Your task to perform on an android device: check google app version Image 0: 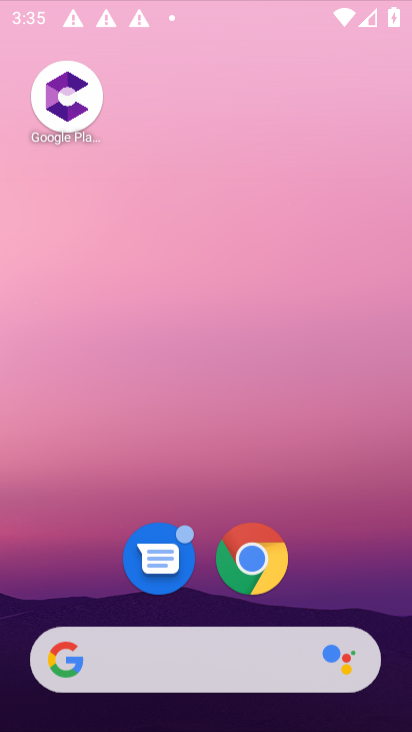
Step 0: click (352, 34)
Your task to perform on an android device: check google app version Image 1: 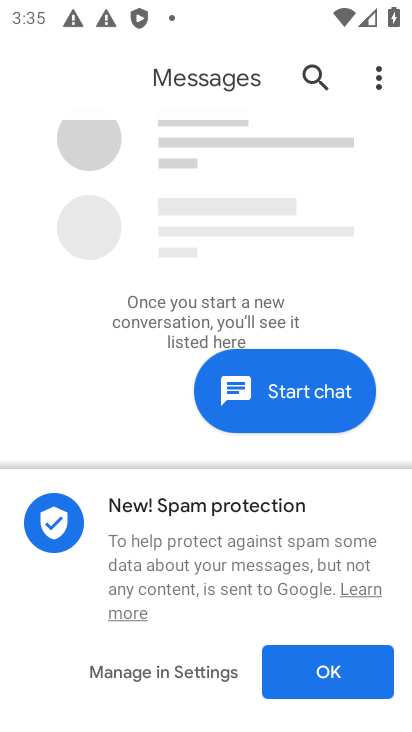
Step 1: press home button
Your task to perform on an android device: check google app version Image 2: 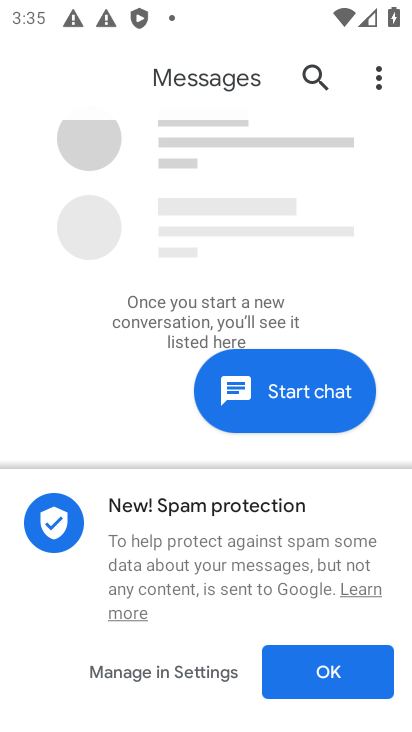
Step 2: press home button
Your task to perform on an android device: check google app version Image 3: 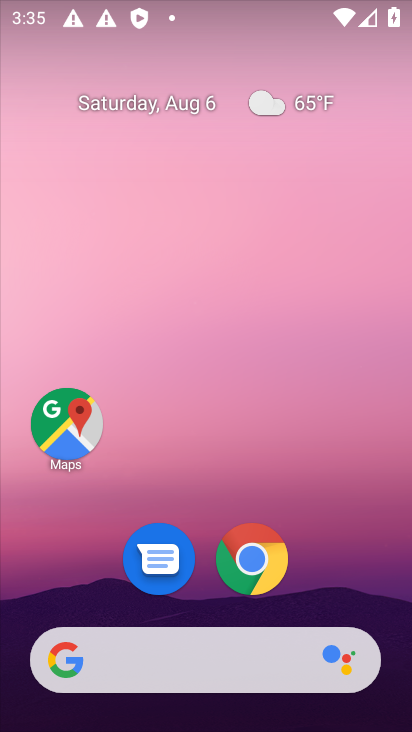
Step 3: click (116, 659)
Your task to perform on an android device: check google app version Image 4: 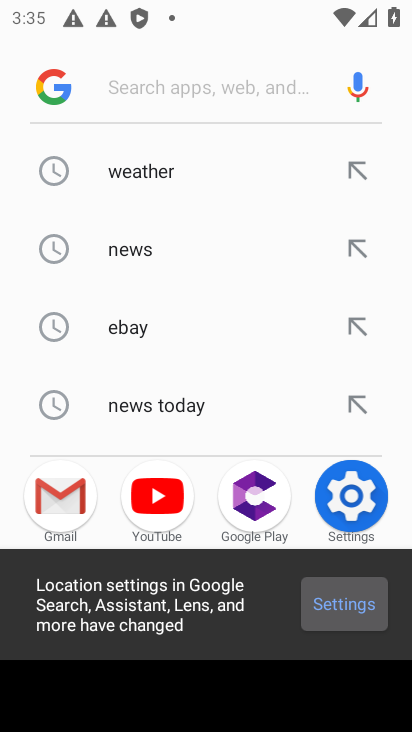
Step 4: click (45, 95)
Your task to perform on an android device: check google app version Image 5: 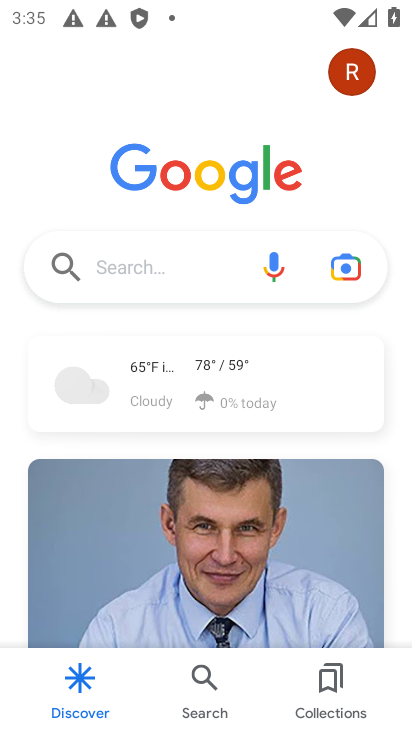
Step 5: click (353, 80)
Your task to perform on an android device: check google app version Image 6: 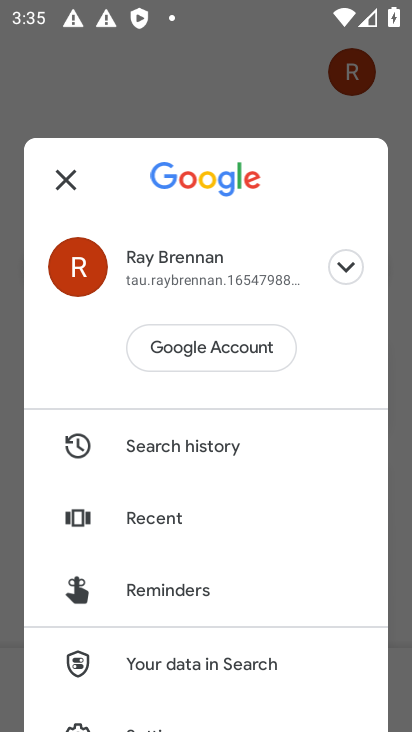
Step 6: drag from (217, 563) to (258, 273)
Your task to perform on an android device: check google app version Image 7: 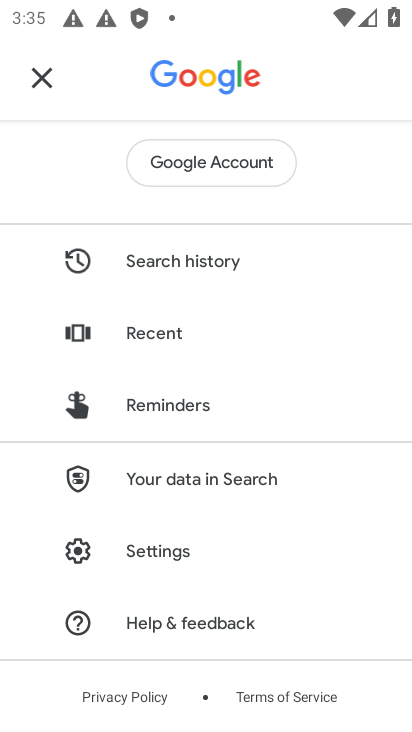
Step 7: click (174, 548)
Your task to perform on an android device: check google app version Image 8: 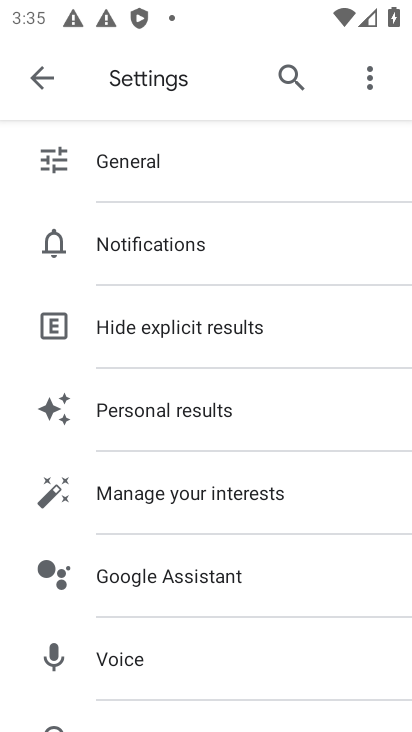
Step 8: drag from (221, 649) to (251, 187)
Your task to perform on an android device: check google app version Image 9: 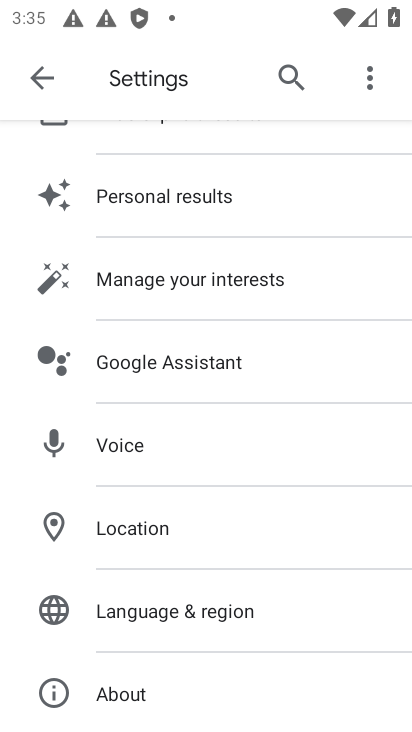
Step 9: click (119, 686)
Your task to perform on an android device: check google app version Image 10: 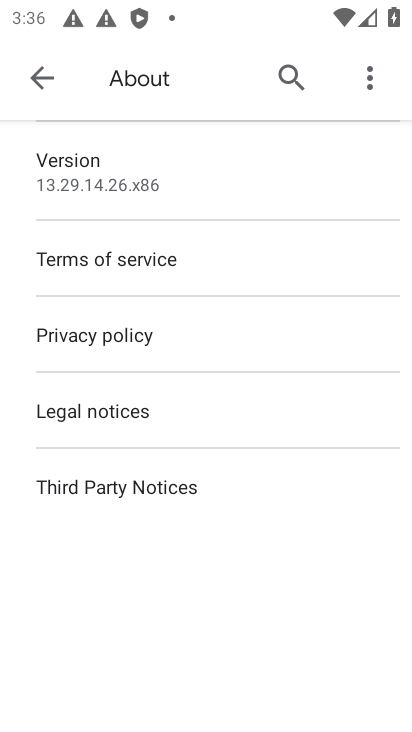
Step 10: task complete